Your task to perform on an android device: turn notification dots off Image 0: 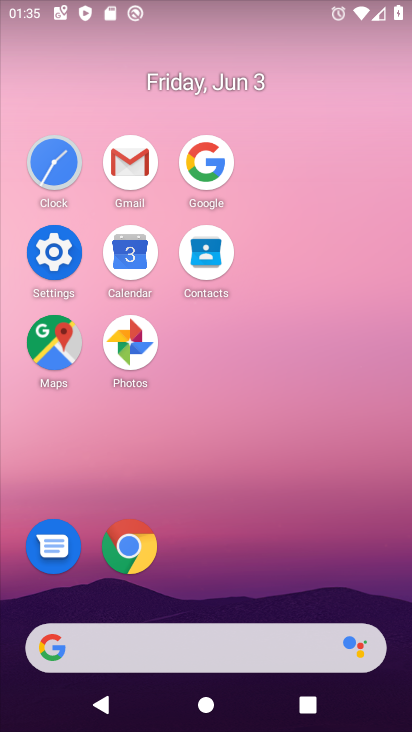
Step 0: click (55, 271)
Your task to perform on an android device: turn notification dots off Image 1: 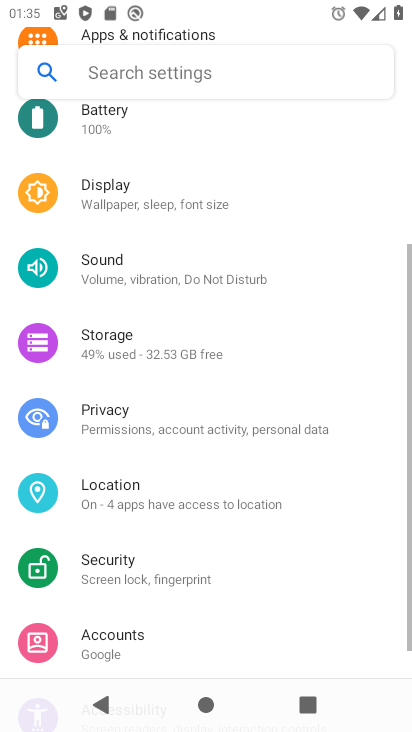
Step 1: drag from (232, 520) to (230, 562)
Your task to perform on an android device: turn notification dots off Image 2: 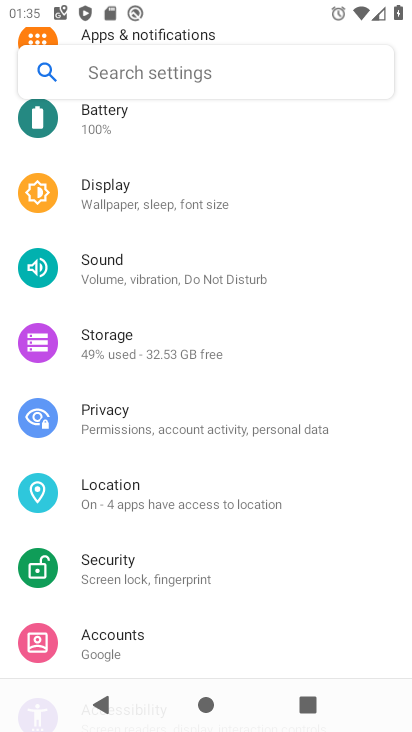
Step 2: drag from (297, 125) to (276, 567)
Your task to perform on an android device: turn notification dots off Image 3: 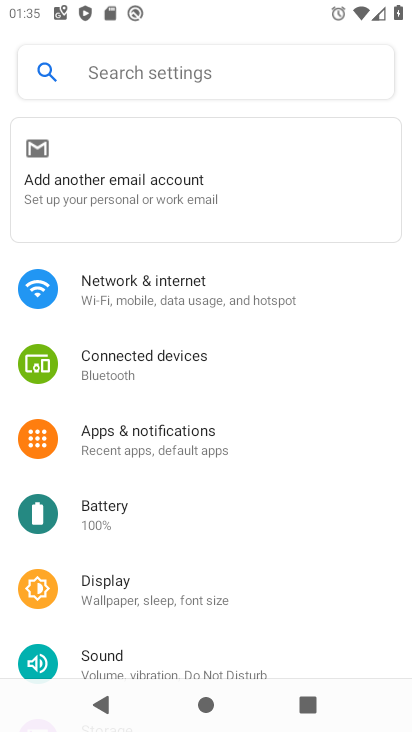
Step 3: click (203, 431)
Your task to perform on an android device: turn notification dots off Image 4: 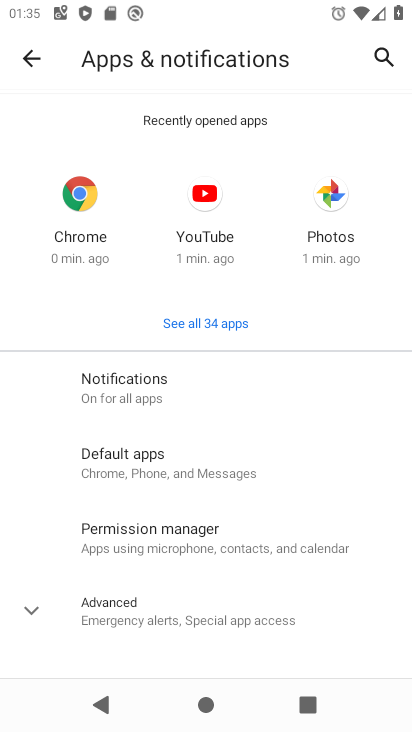
Step 4: click (179, 402)
Your task to perform on an android device: turn notification dots off Image 5: 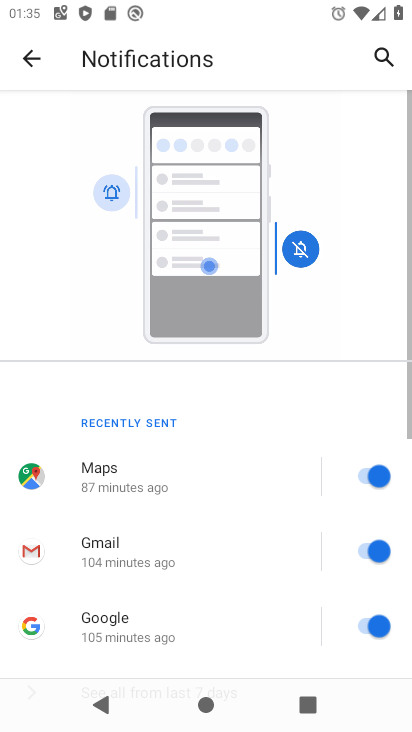
Step 5: drag from (228, 598) to (254, 223)
Your task to perform on an android device: turn notification dots off Image 6: 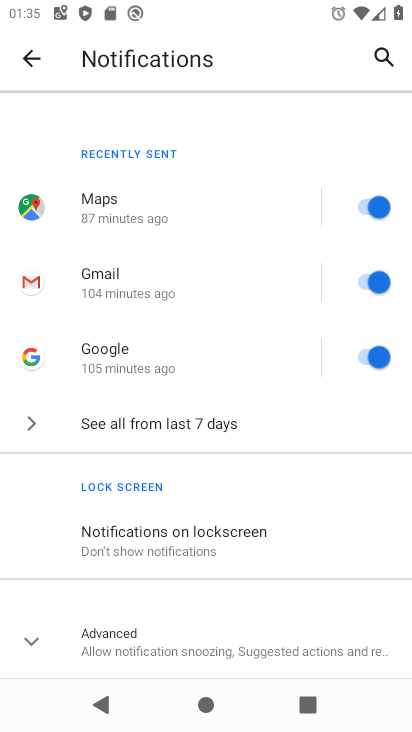
Step 6: click (216, 632)
Your task to perform on an android device: turn notification dots off Image 7: 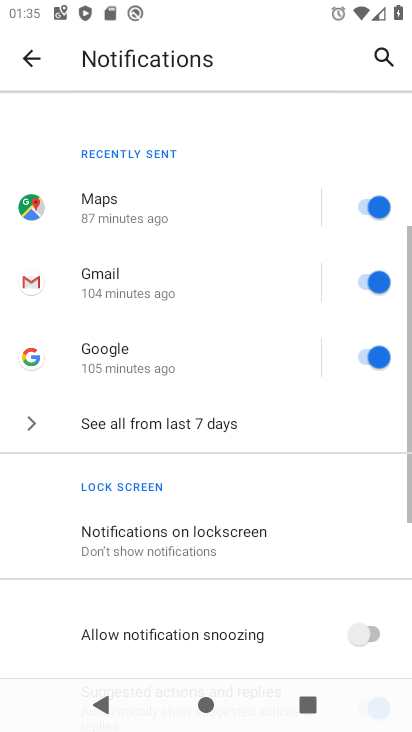
Step 7: drag from (215, 631) to (212, 281)
Your task to perform on an android device: turn notification dots off Image 8: 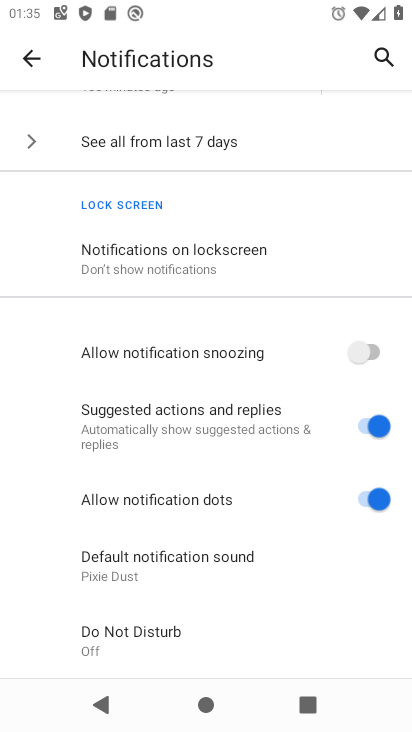
Step 8: click (389, 501)
Your task to perform on an android device: turn notification dots off Image 9: 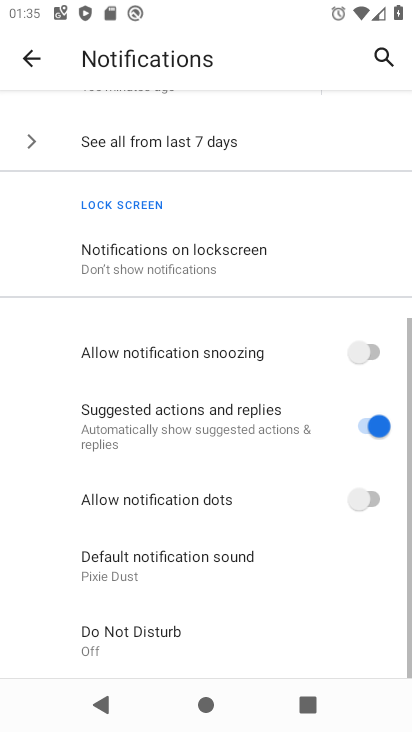
Step 9: task complete